Your task to perform on an android device: What's on my calendar today? Image 0: 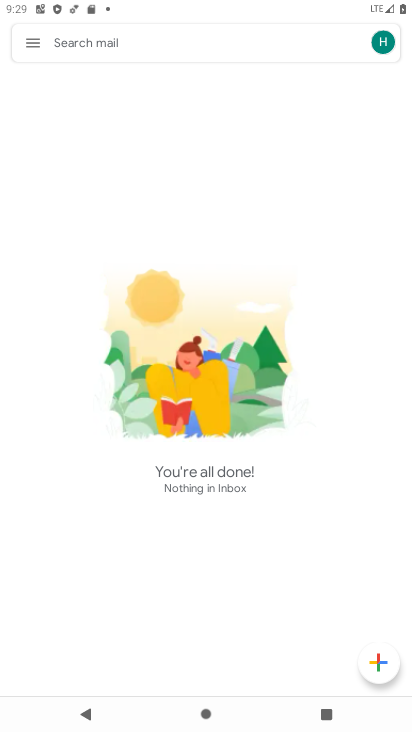
Step 0: press home button
Your task to perform on an android device: What's on my calendar today? Image 1: 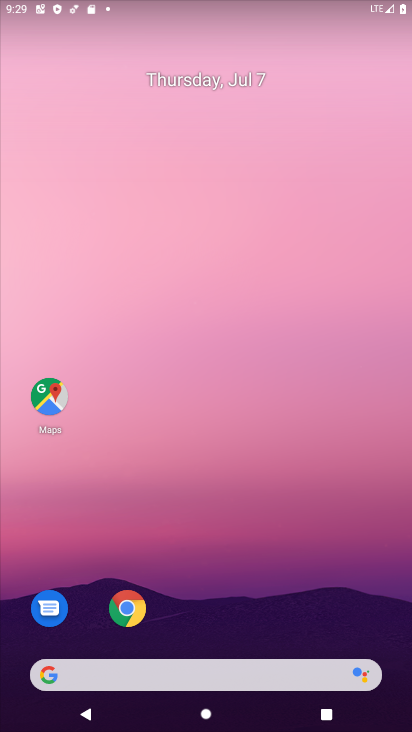
Step 1: drag from (227, 622) to (267, 84)
Your task to perform on an android device: What's on my calendar today? Image 2: 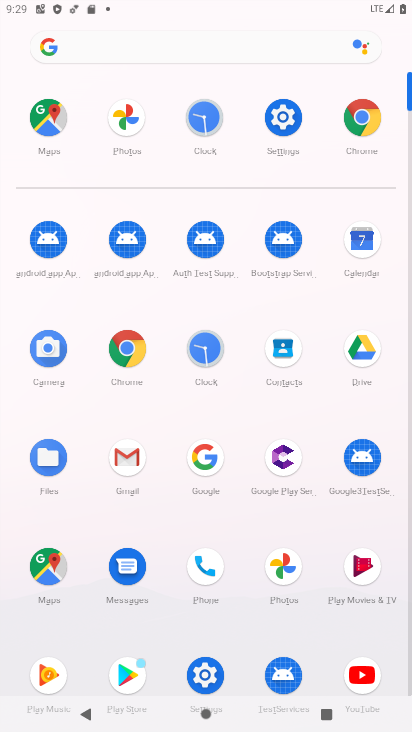
Step 2: click (361, 241)
Your task to perform on an android device: What's on my calendar today? Image 3: 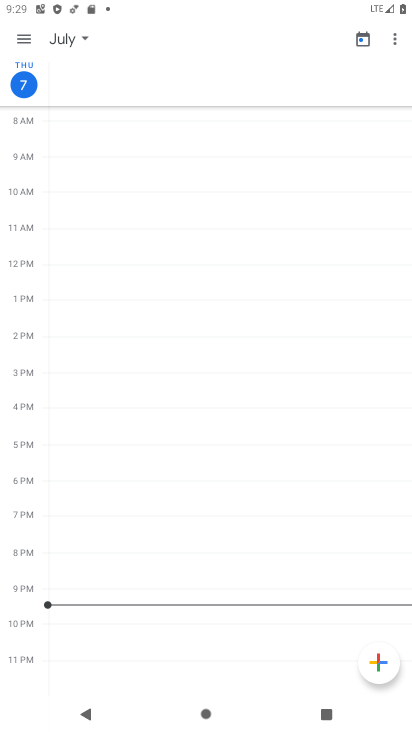
Step 3: click (85, 37)
Your task to perform on an android device: What's on my calendar today? Image 4: 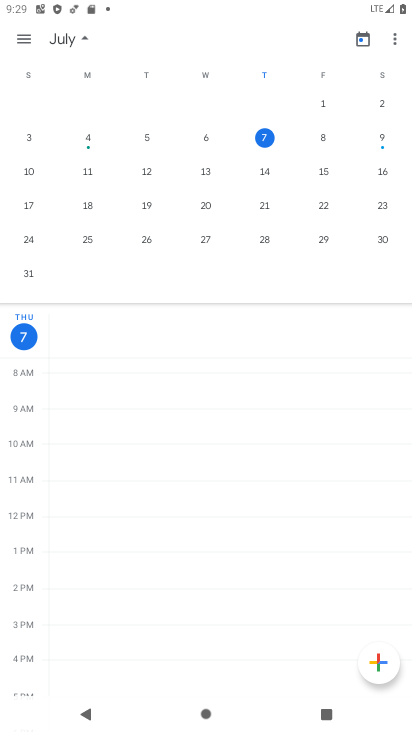
Step 4: click (259, 137)
Your task to perform on an android device: What's on my calendar today? Image 5: 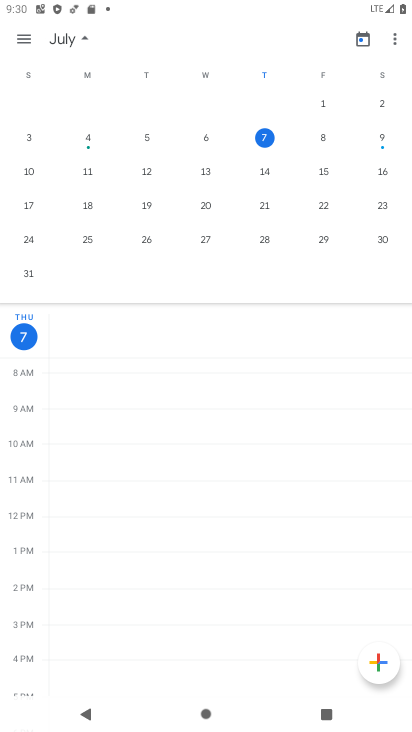
Step 5: task complete